Your task to perform on an android device: turn on airplane mode Image 0: 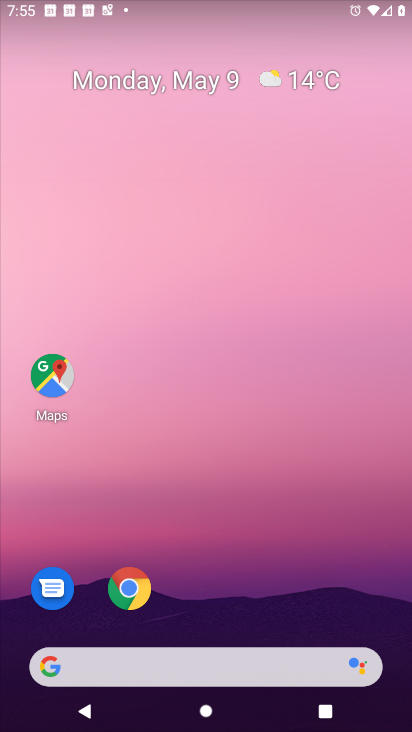
Step 0: drag from (279, 10) to (285, 557)
Your task to perform on an android device: turn on airplane mode Image 1: 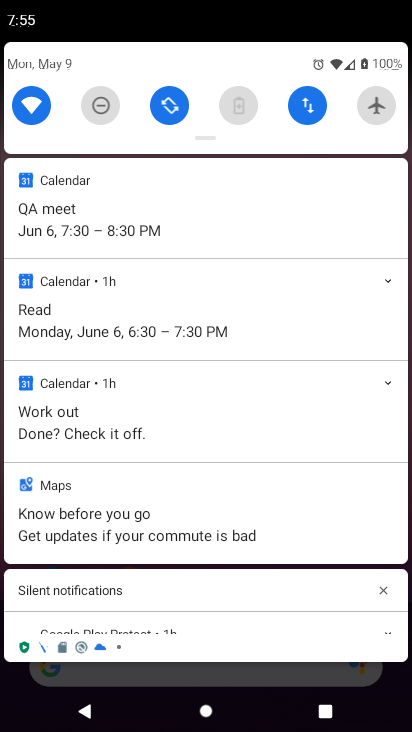
Step 1: click (376, 105)
Your task to perform on an android device: turn on airplane mode Image 2: 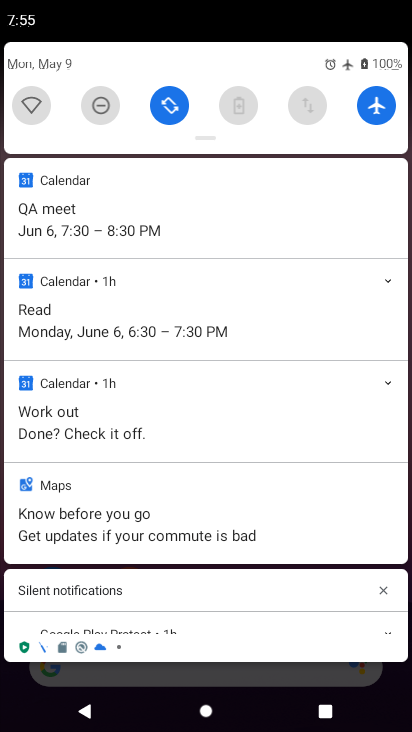
Step 2: task complete